Your task to perform on an android device: open wifi settings Image 0: 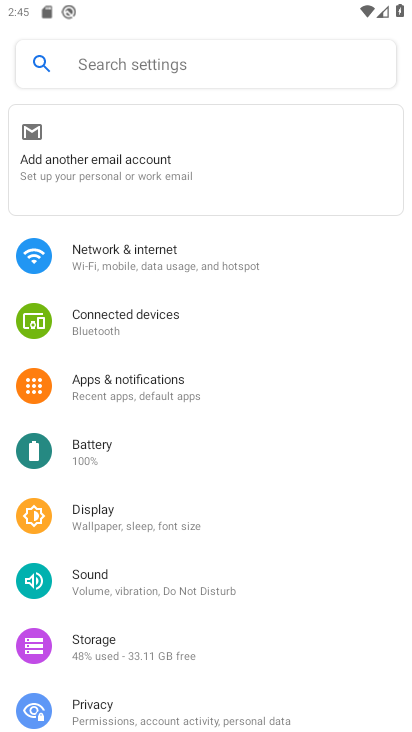
Step 0: press home button
Your task to perform on an android device: open wifi settings Image 1: 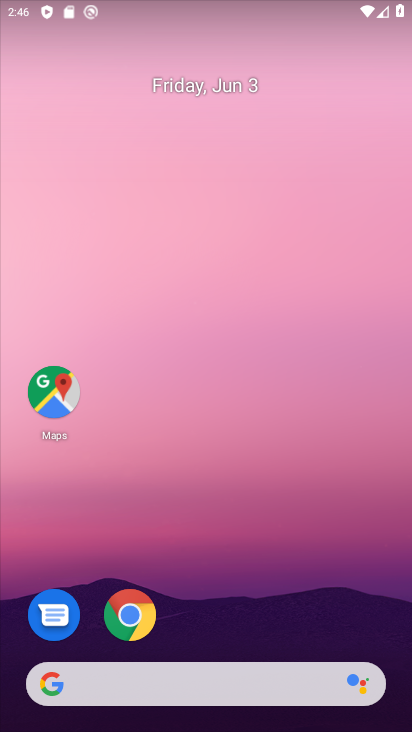
Step 1: drag from (256, 462) to (340, 149)
Your task to perform on an android device: open wifi settings Image 2: 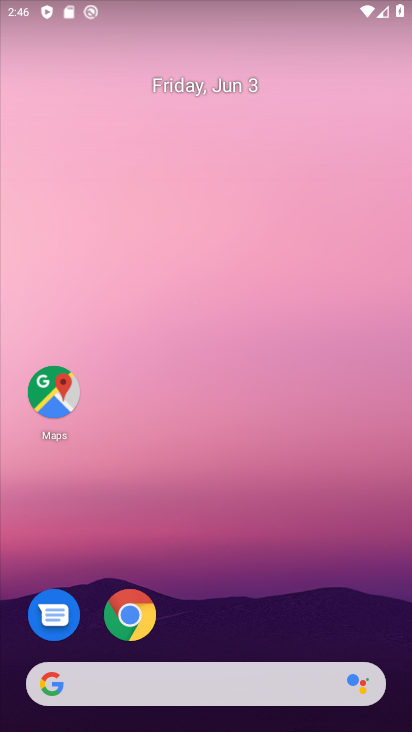
Step 2: drag from (230, 602) to (334, 2)
Your task to perform on an android device: open wifi settings Image 3: 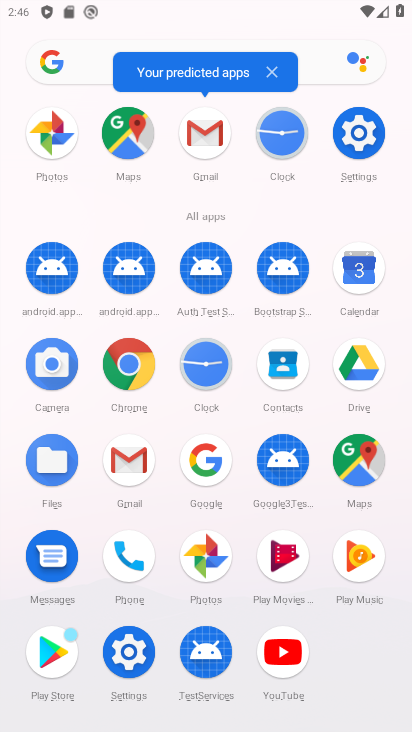
Step 3: click (358, 124)
Your task to perform on an android device: open wifi settings Image 4: 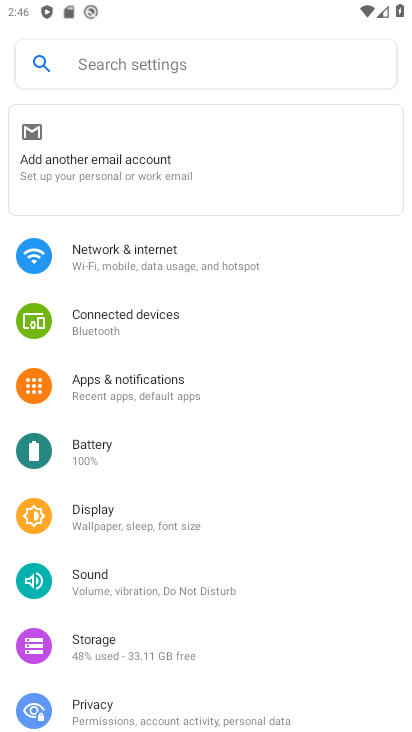
Step 4: click (129, 250)
Your task to perform on an android device: open wifi settings Image 5: 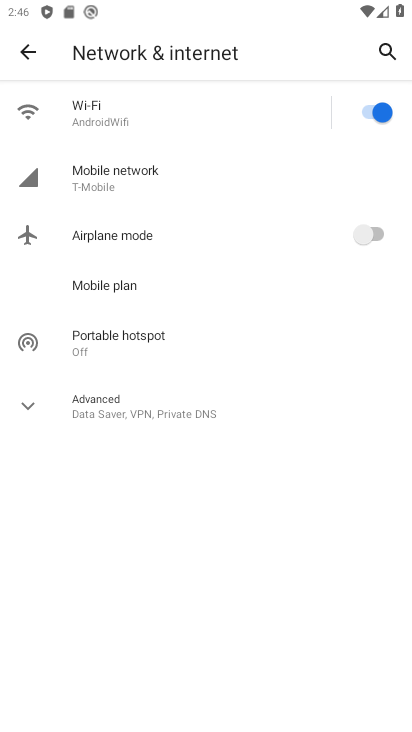
Step 5: click (115, 120)
Your task to perform on an android device: open wifi settings Image 6: 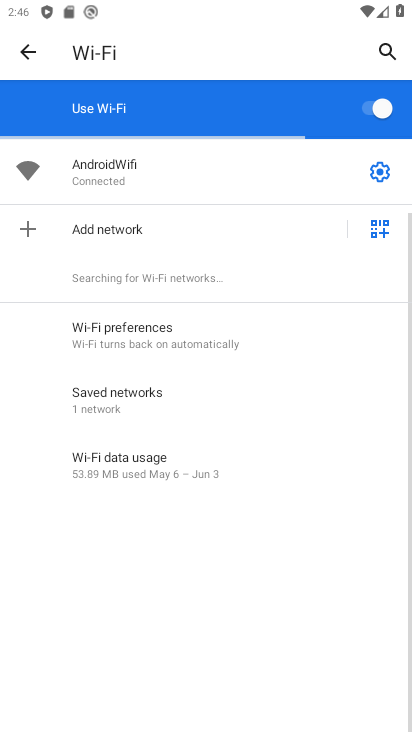
Step 6: task complete